Your task to perform on an android device: Open Google Chrome Image 0: 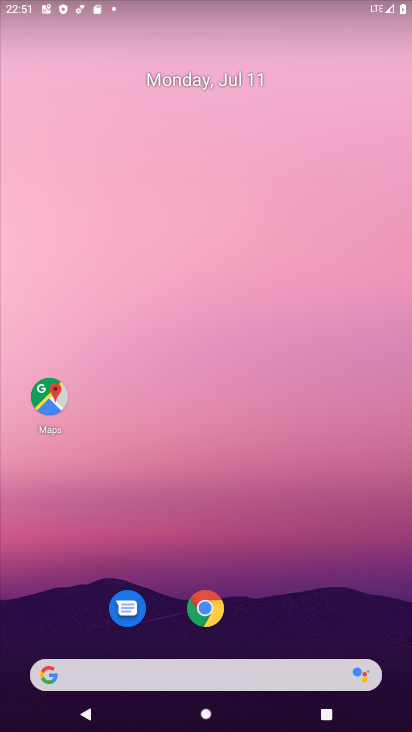
Step 0: click (203, 605)
Your task to perform on an android device: Open Google Chrome Image 1: 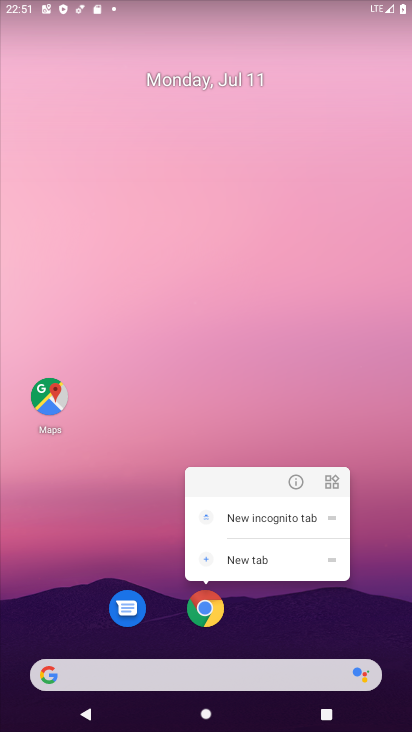
Step 1: click (201, 608)
Your task to perform on an android device: Open Google Chrome Image 2: 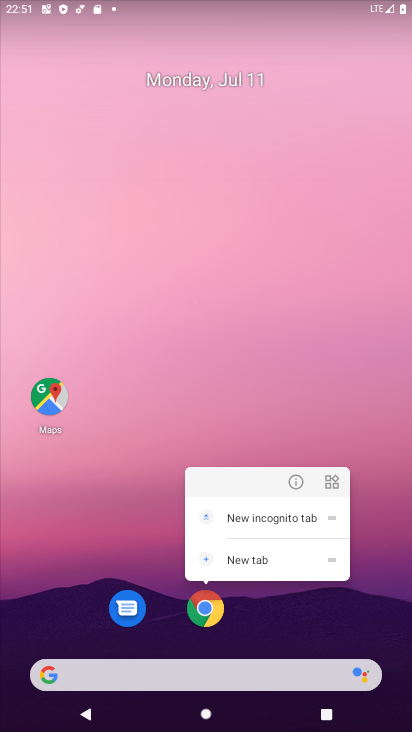
Step 2: click (199, 608)
Your task to perform on an android device: Open Google Chrome Image 3: 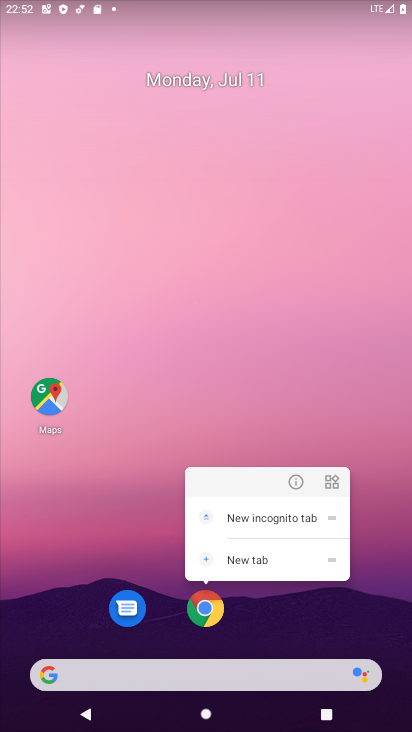
Step 3: task complete